Your task to perform on an android device: allow notifications from all sites in the chrome app Image 0: 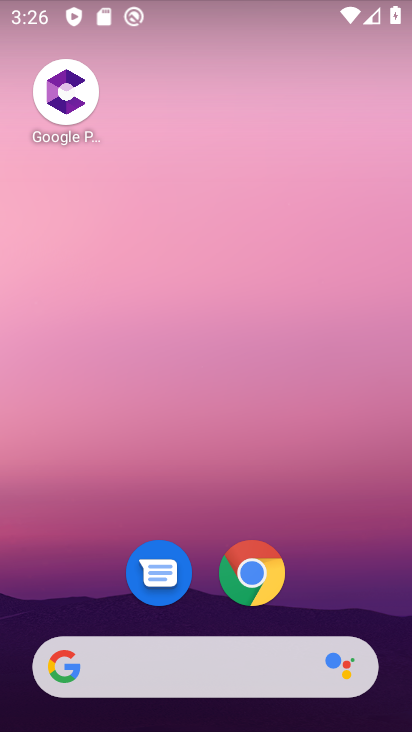
Step 0: click (264, 590)
Your task to perform on an android device: allow notifications from all sites in the chrome app Image 1: 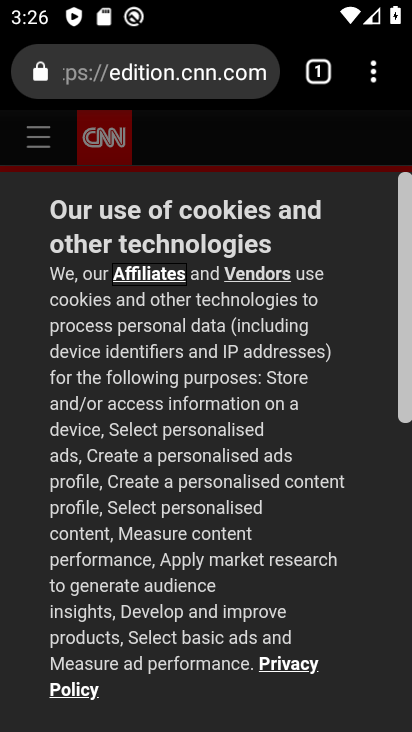
Step 1: press home button
Your task to perform on an android device: allow notifications from all sites in the chrome app Image 2: 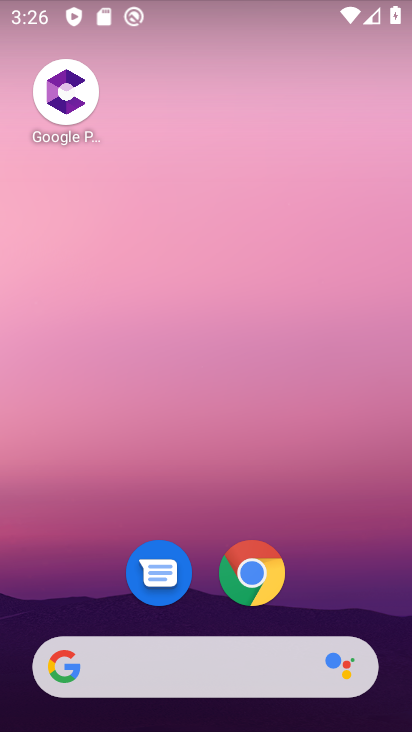
Step 2: click (259, 573)
Your task to perform on an android device: allow notifications from all sites in the chrome app Image 3: 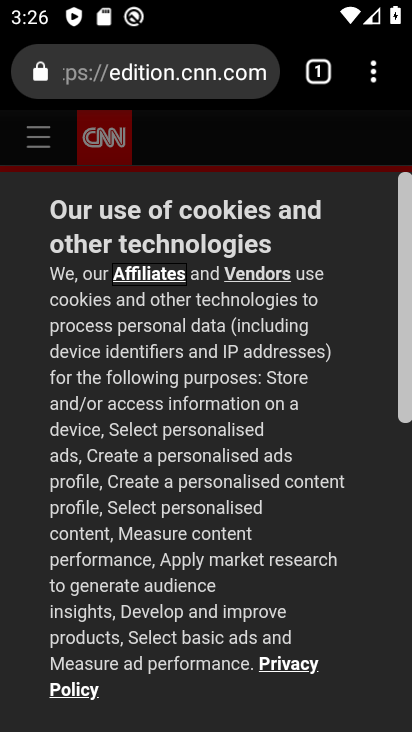
Step 3: click (385, 70)
Your task to perform on an android device: allow notifications from all sites in the chrome app Image 4: 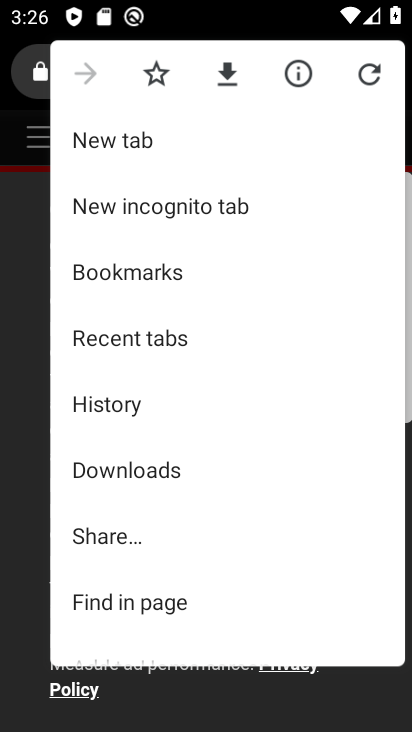
Step 4: drag from (251, 614) to (192, 131)
Your task to perform on an android device: allow notifications from all sites in the chrome app Image 5: 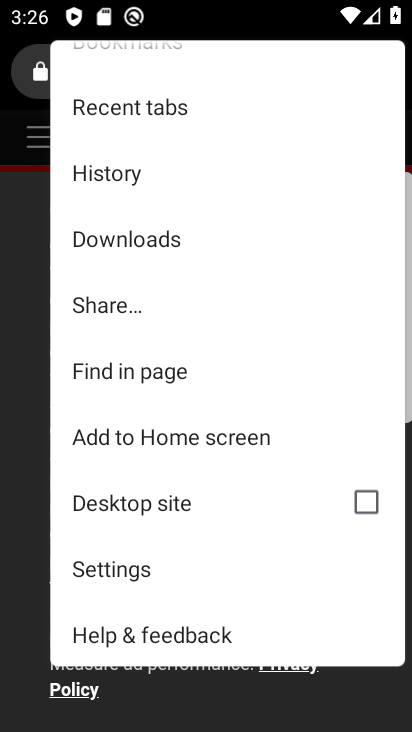
Step 5: click (190, 583)
Your task to perform on an android device: allow notifications from all sites in the chrome app Image 6: 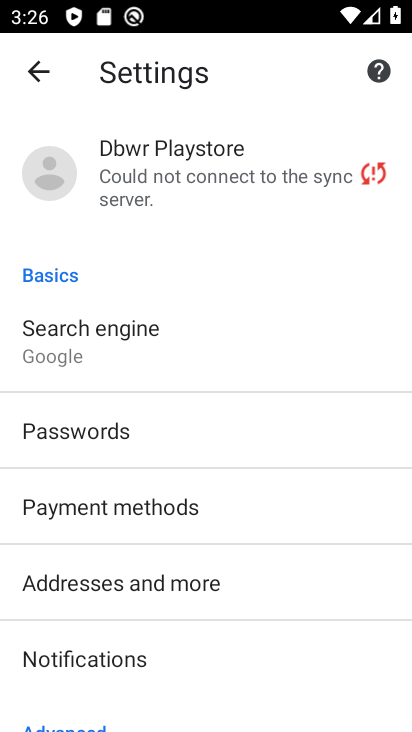
Step 6: drag from (269, 680) to (196, 222)
Your task to perform on an android device: allow notifications from all sites in the chrome app Image 7: 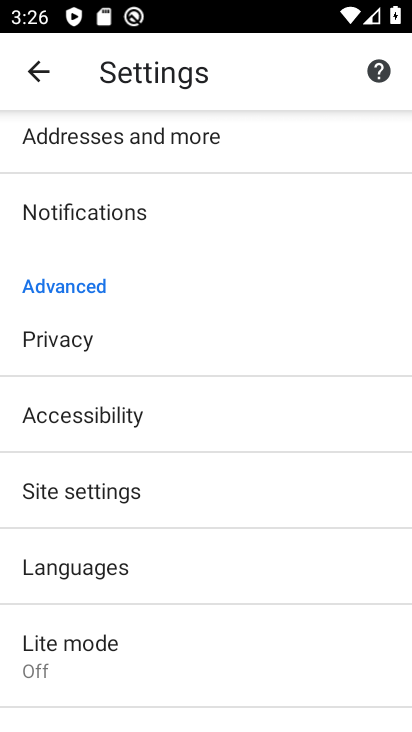
Step 7: click (235, 506)
Your task to perform on an android device: allow notifications from all sites in the chrome app Image 8: 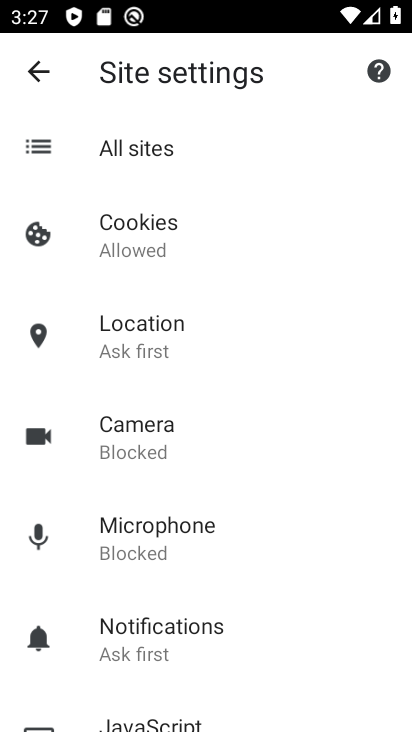
Step 8: click (255, 649)
Your task to perform on an android device: allow notifications from all sites in the chrome app Image 9: 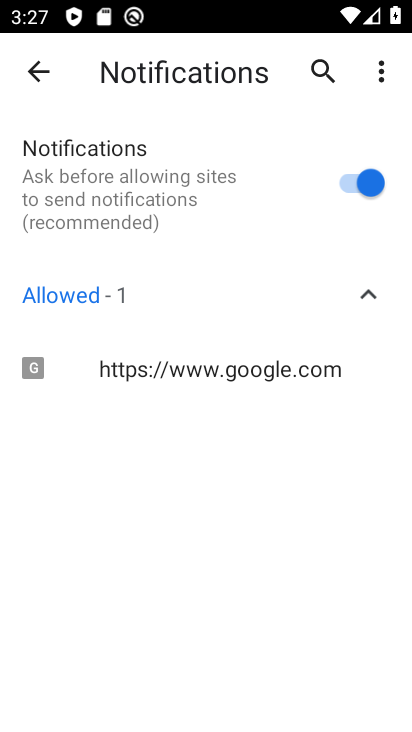
Step 9: task complete